Your task to perform on an android device: Add dell xps to the cart on newegg.com Image 0: 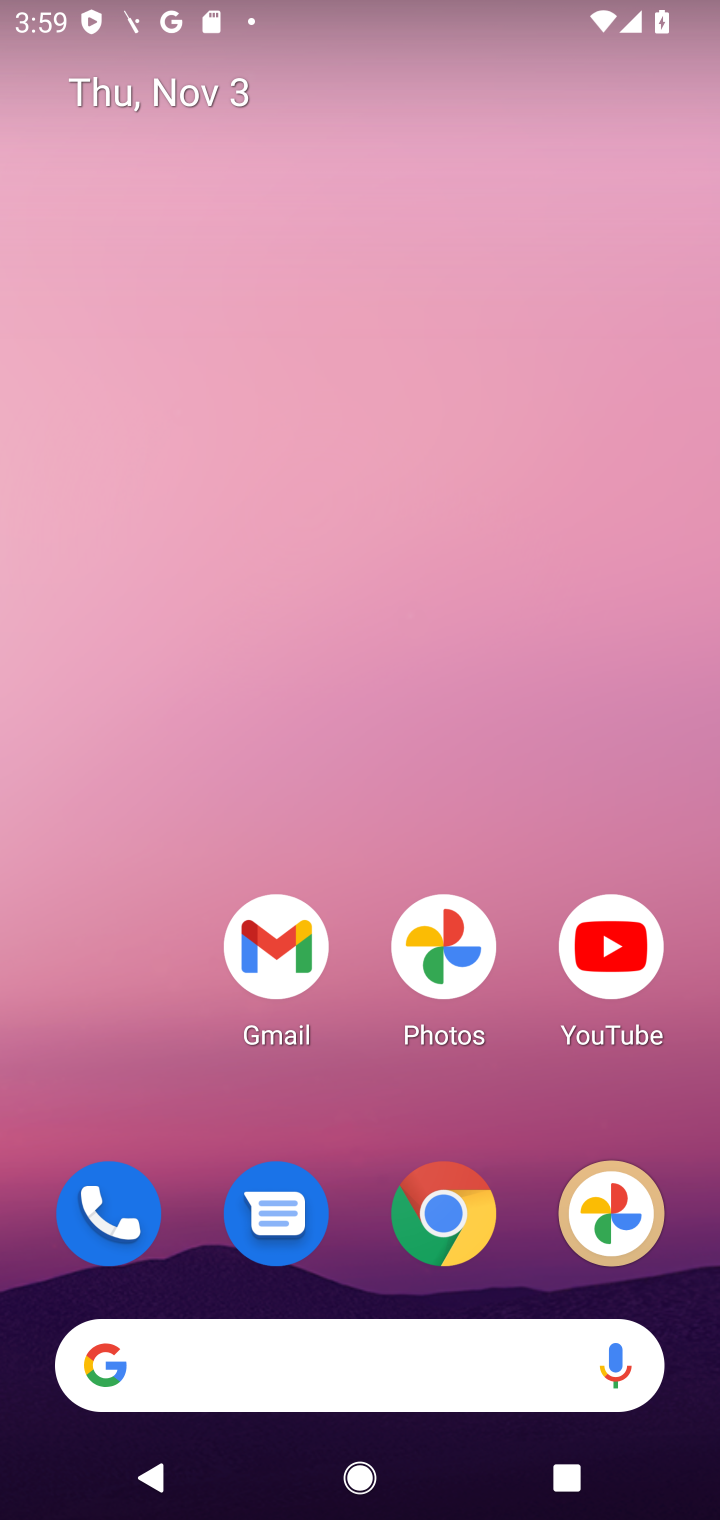
Step 0: click (452, 1229)
Your task to perform on an android device: Add dell xps to the cart on newegg.com Image 1: 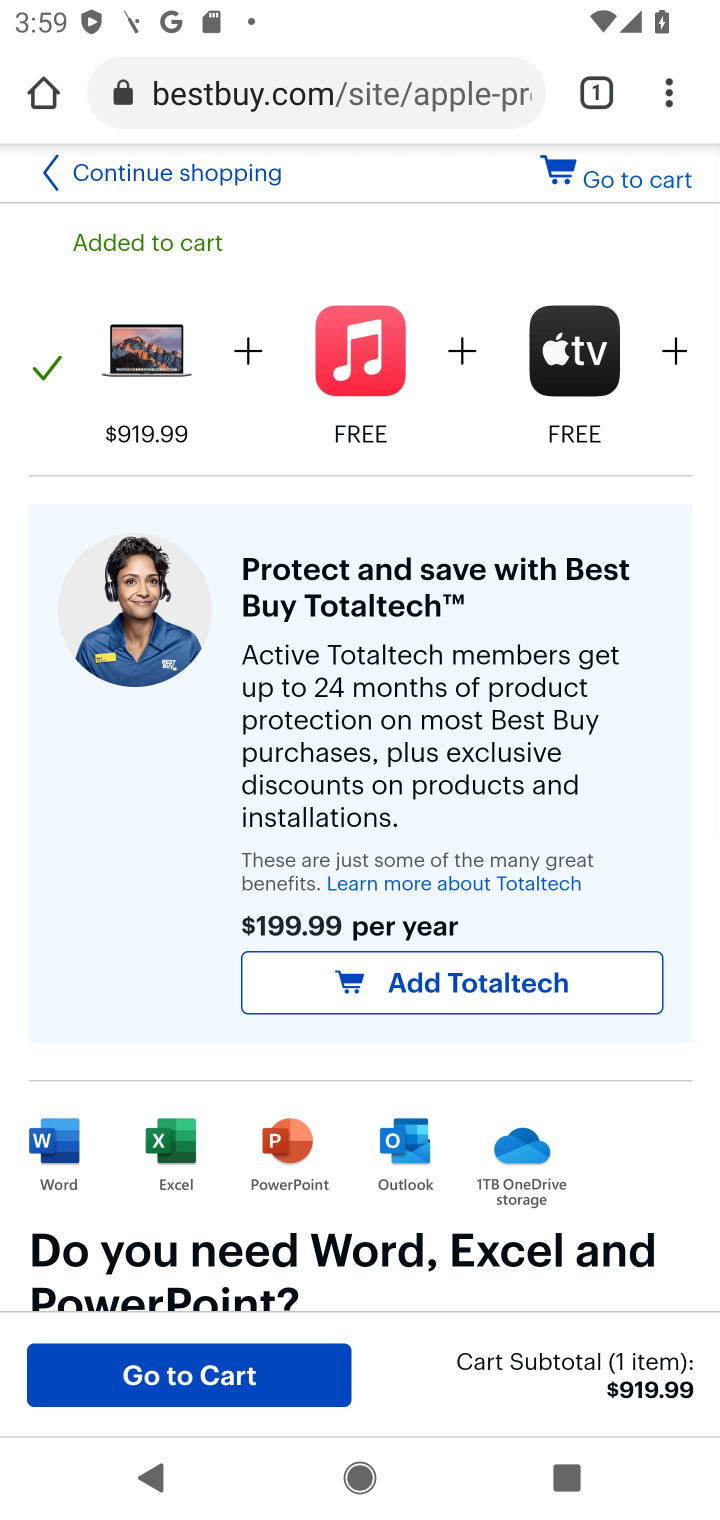
Step 1: click (289, 105)
Your task to perform on an android device: Add dell xps to the cart on newegg.com Image 2: 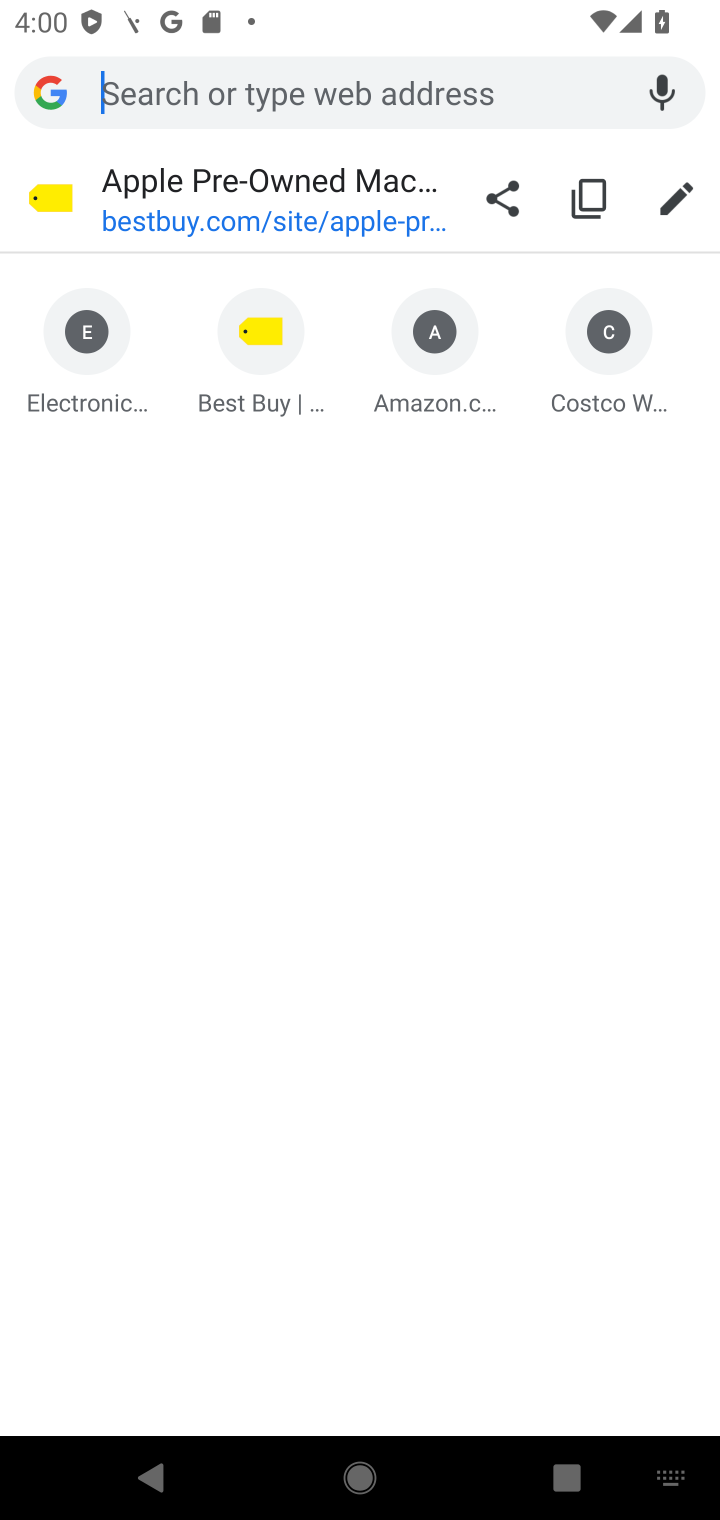
Step 2: type "newegg.com"
Your task to perform on an android device: Add dell xps to the cart on newegg.com Image 3: 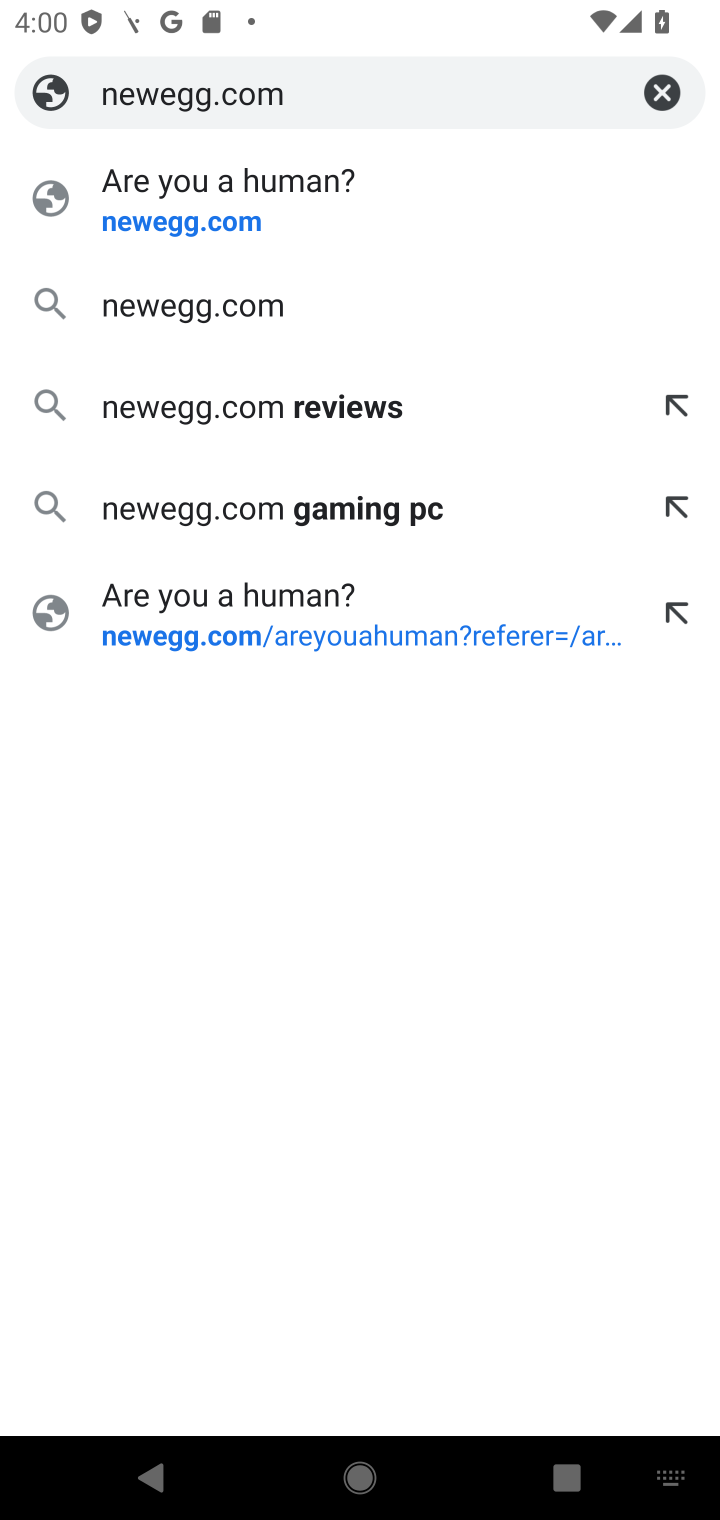
Step 3: click (190, 327)
Your task to perform on an android device: Add dell xps to the cart on newegg.com Image 4: 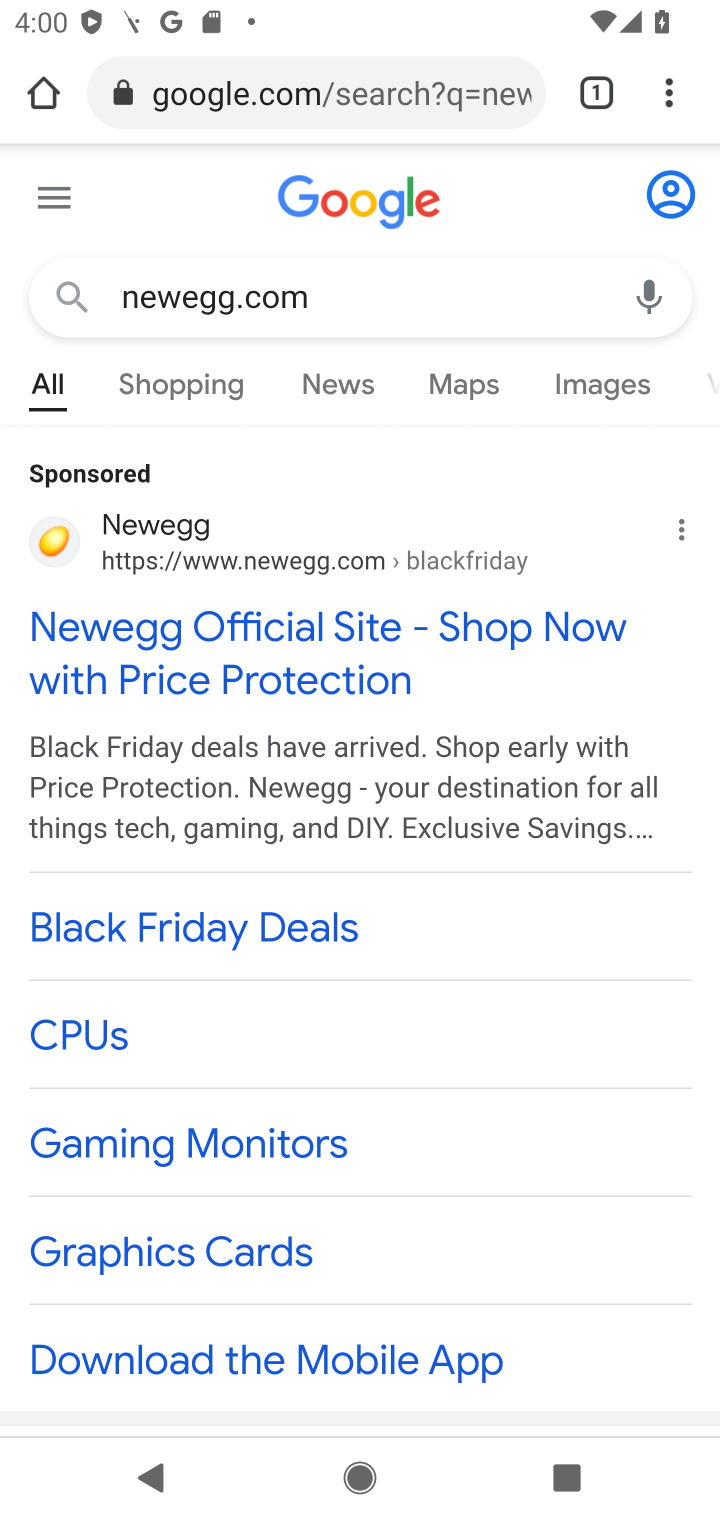
Step 4: drag from (158, 1019) to (207, 180)
Your task to perform on an android device: Add dell xps to the cart on newegg.com Image 5: 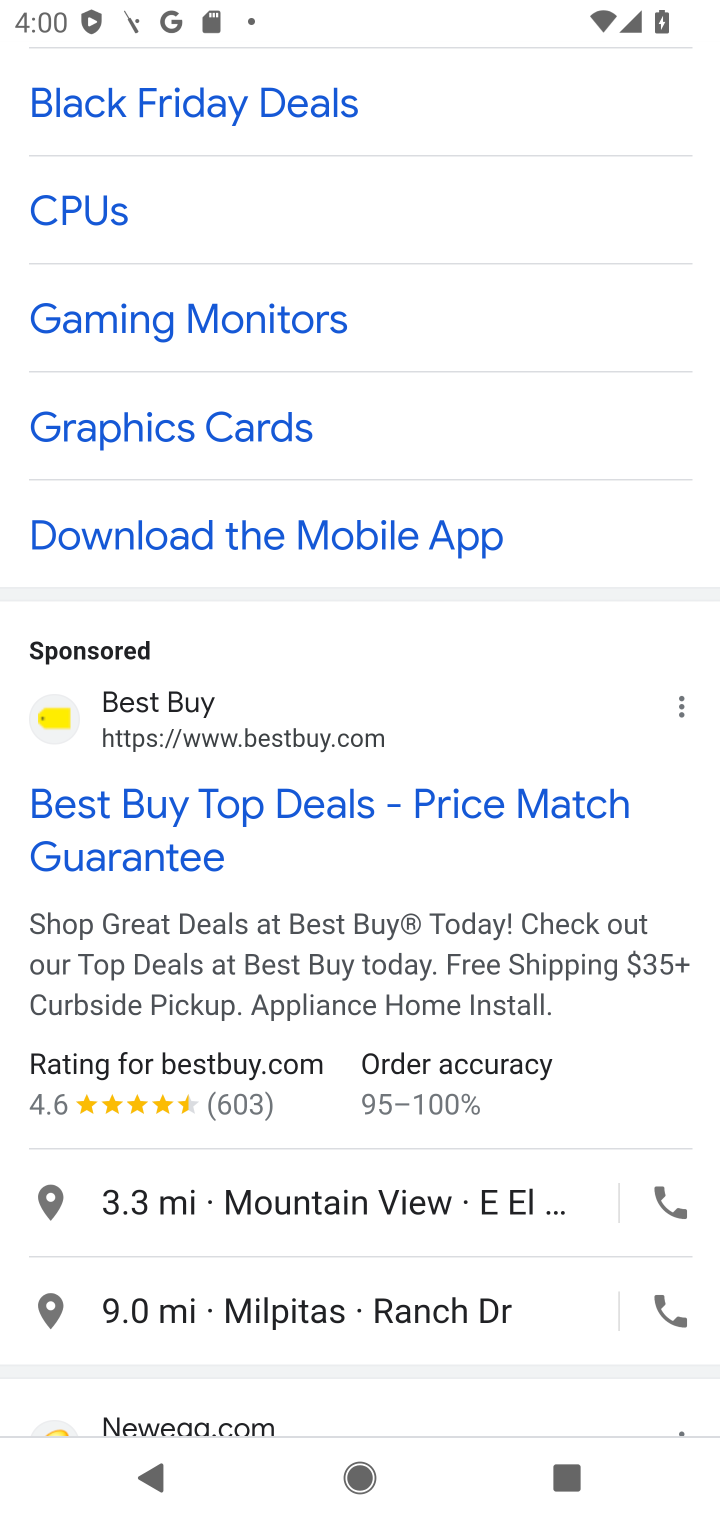
Step 5: drag from (433, 261) to (447, 1073)
Your task to perform on an android device: Add dell xps to the cart on newegg.com Image 6: 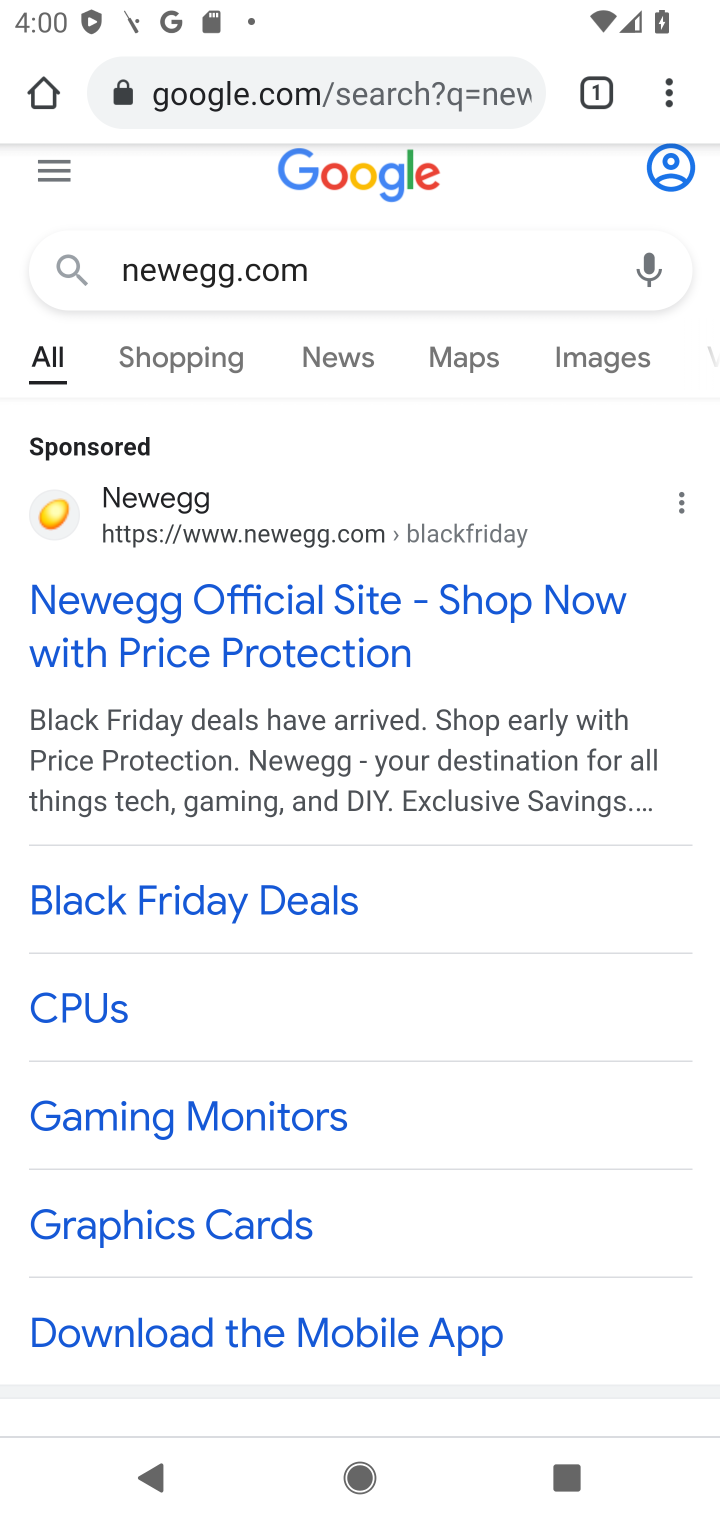
Step 6: drag from (224, 991) to (242, 401)
Your task to perform on an android device: Add dell xps to the cart on newegg.com Image 7: 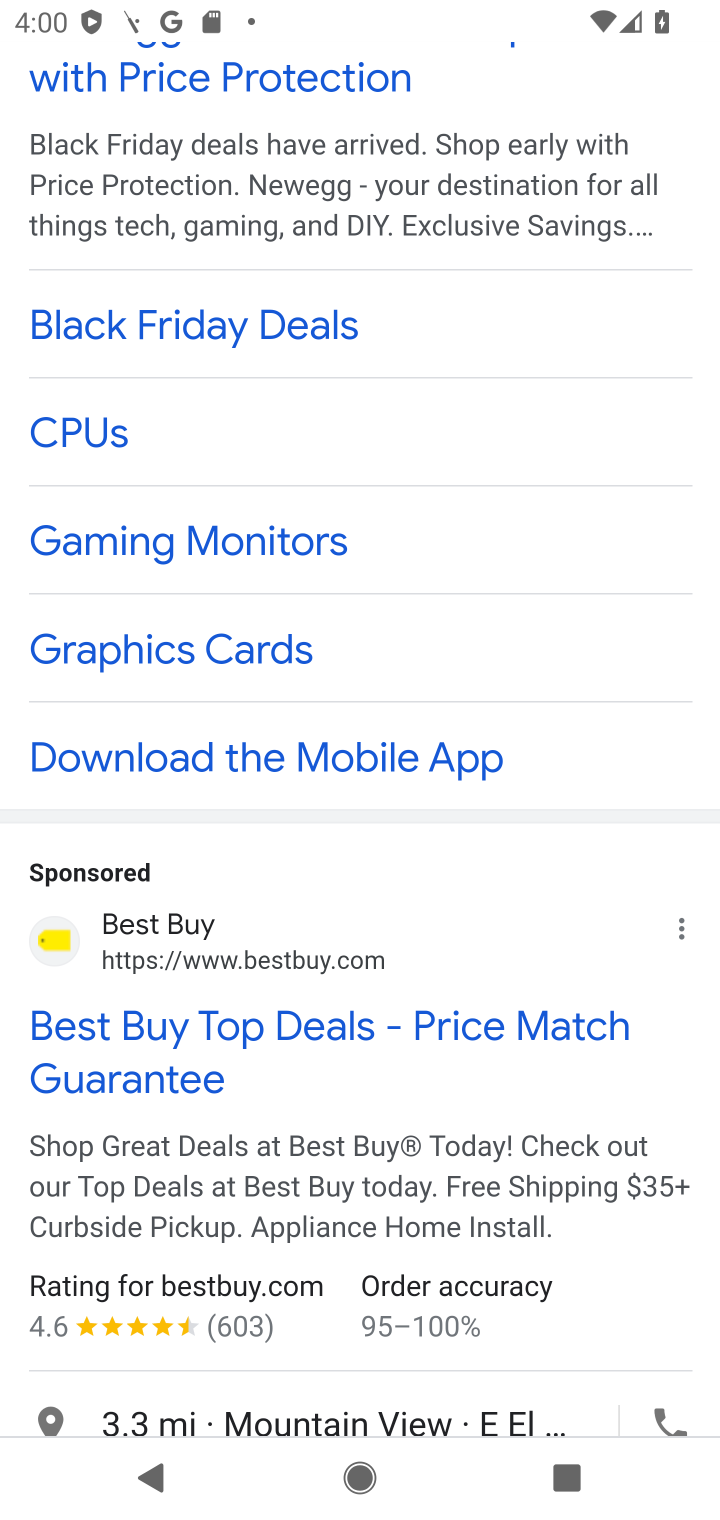
Step 7: drag from (208, 959) to (225, 268)
Your task to perform on an android device: Add dell xps to the cart on newegg.com Image 8: 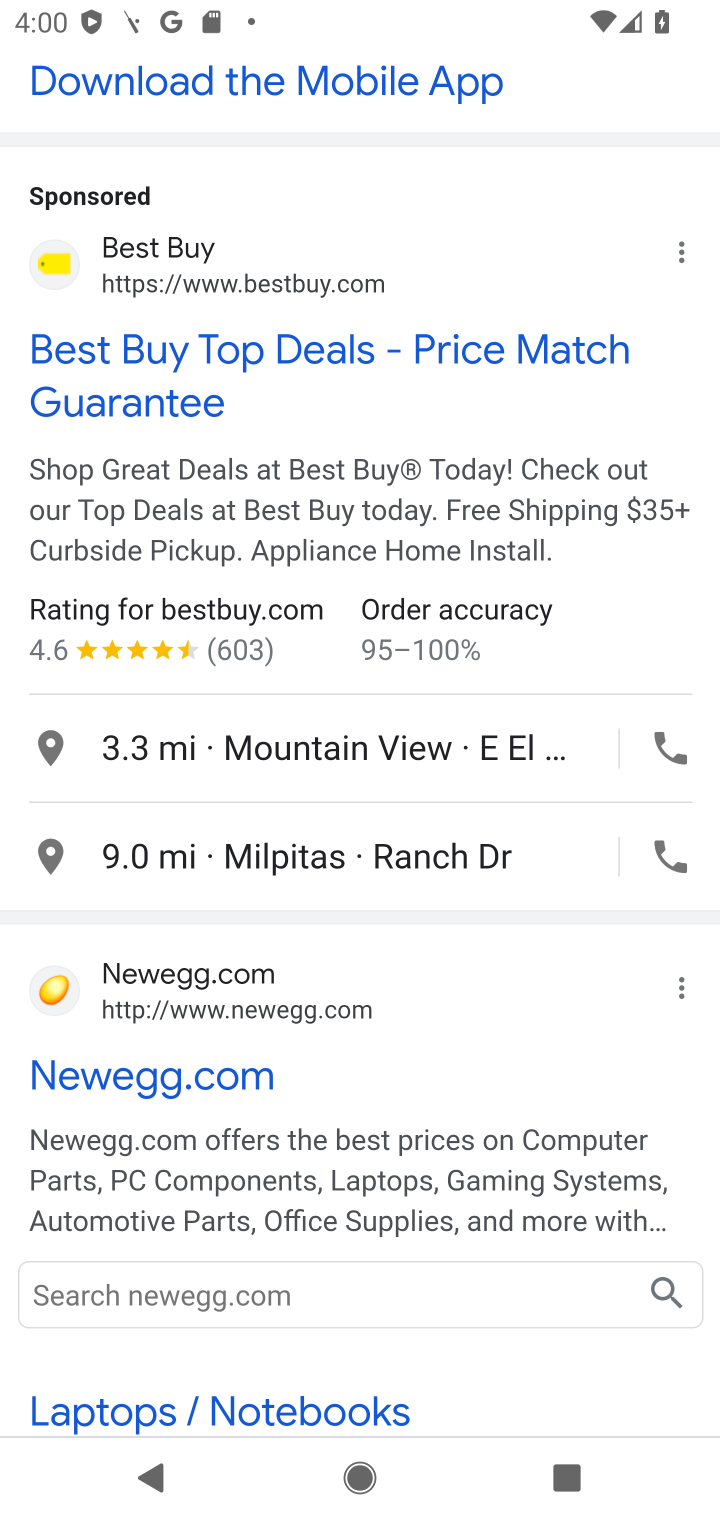
Step 8: drag from (234, 1229) to (275, 643)
Your task to perform on an android device: Add dell xps to the cart on newegg.com Image 9: 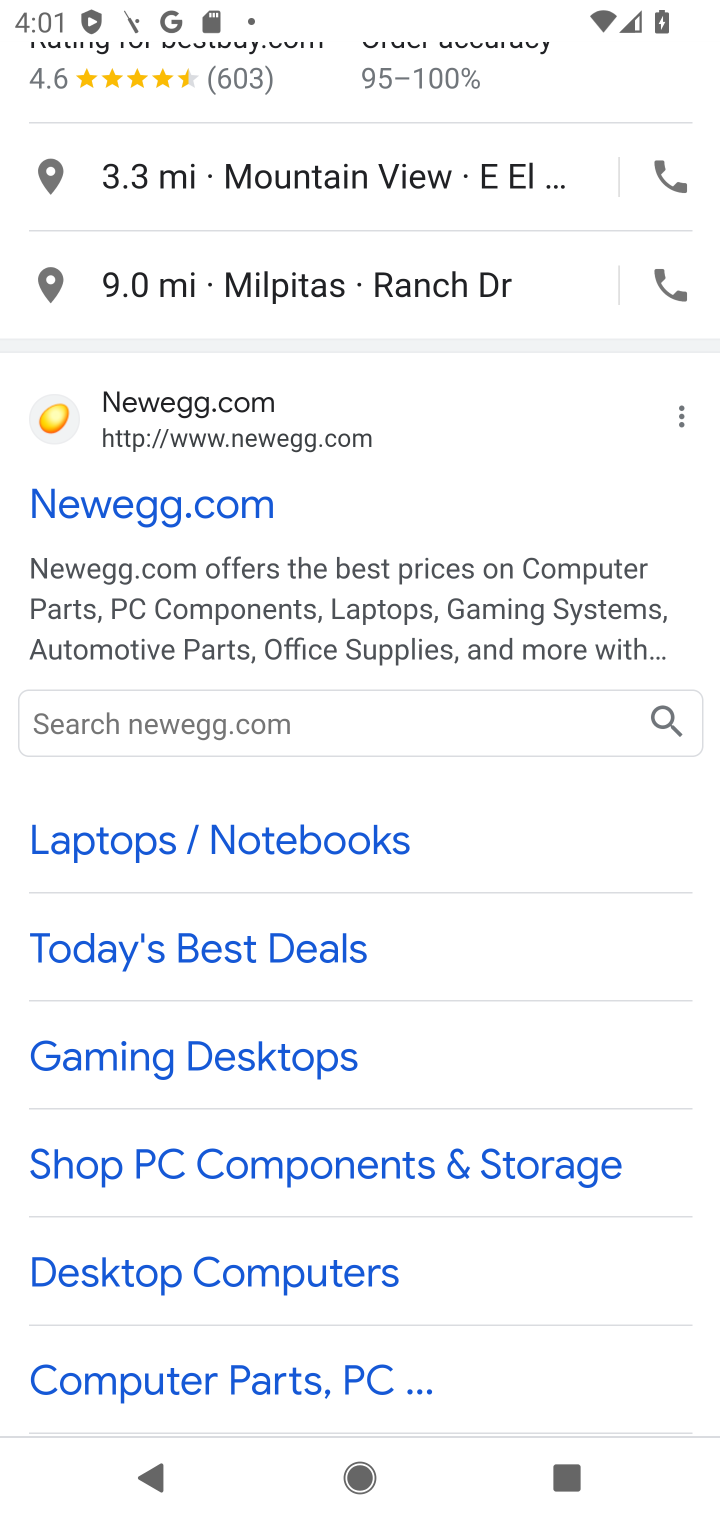
Step 9: click (190, 517)
Your task to perform on an android device: Add dell xps to the cart on newegg.com Image 10: 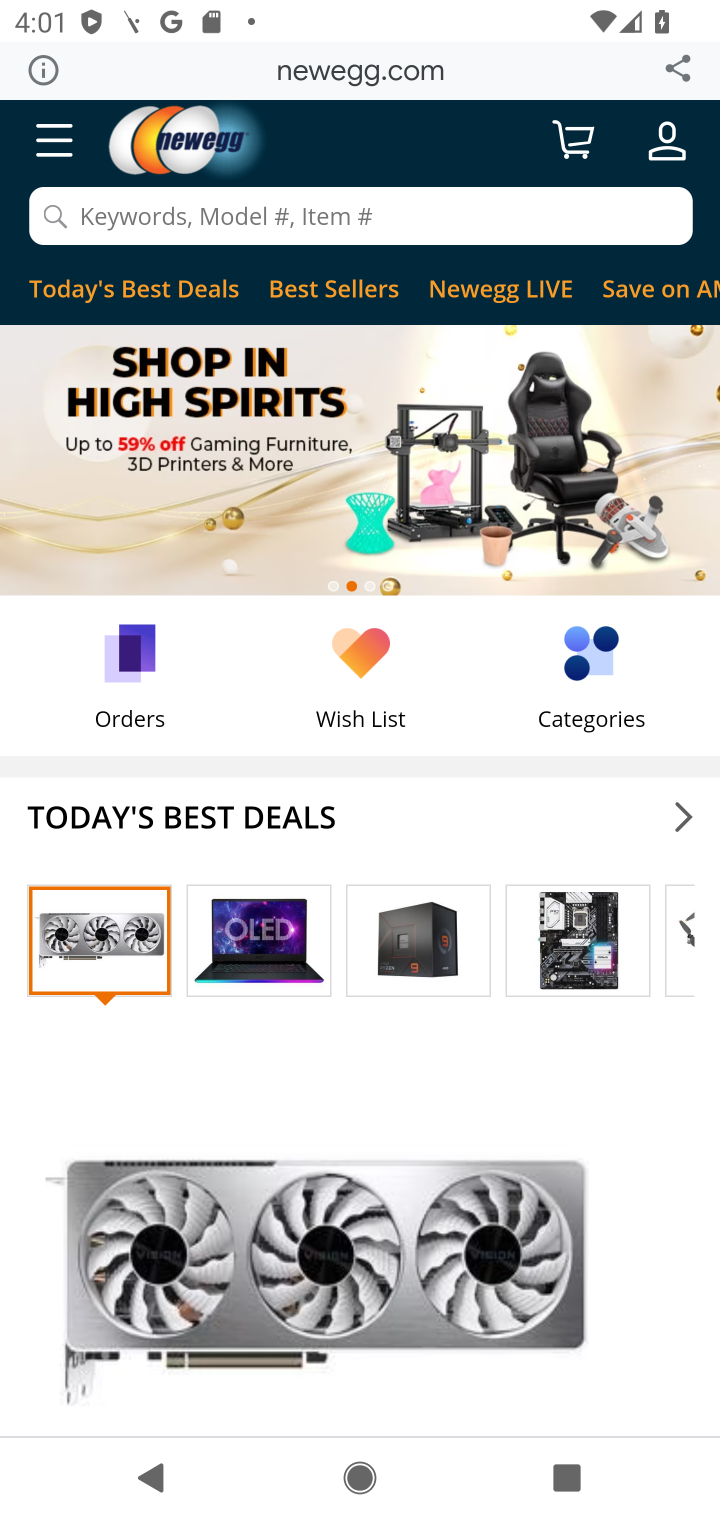
Step 10: click (340, 224)
Your task to perform on an android device: Add dell xps to the cart on newegg.com Image 11: 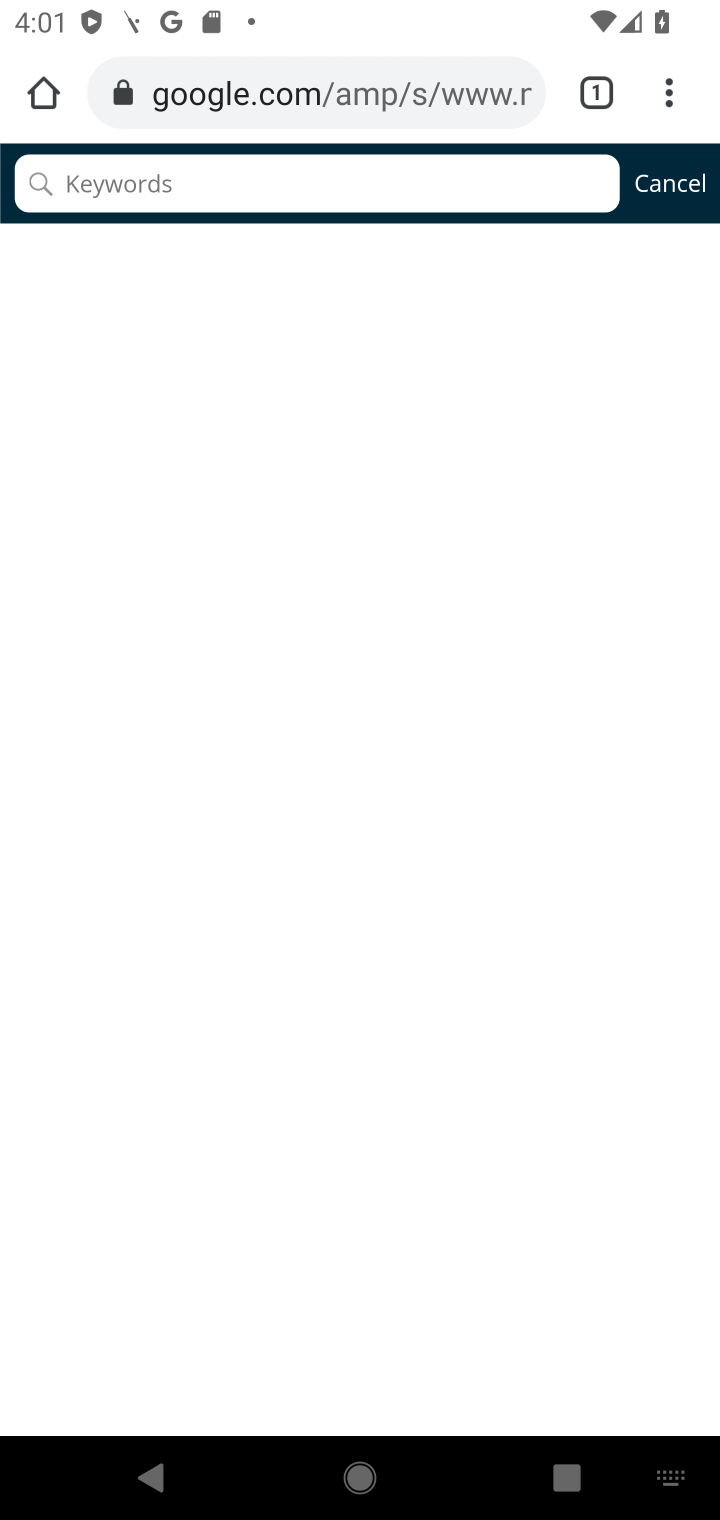
Step 11: type "dell xps"
Your task to perform on an android device: Add dell xps to the cart on newegg.com Image 12: 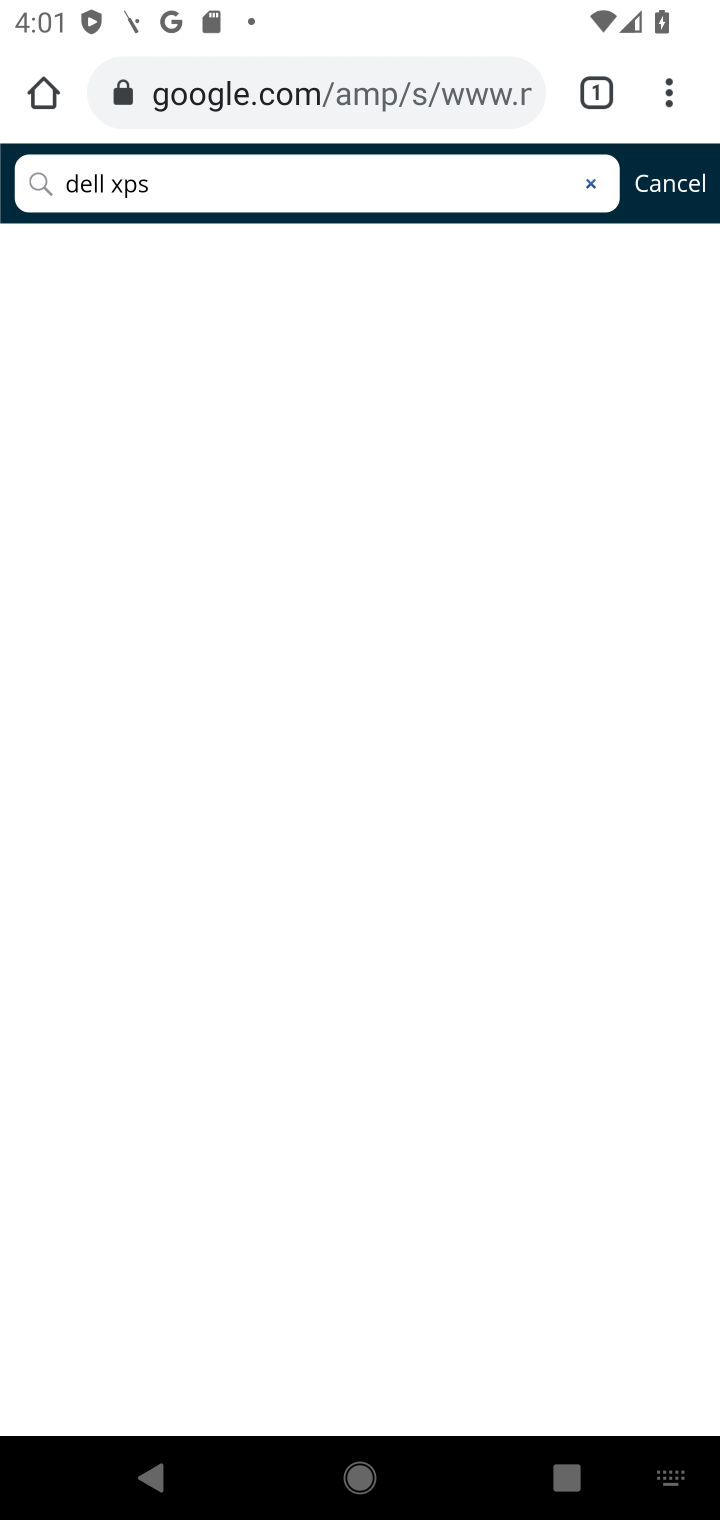
Step 12: click (42, 195)
Your task to perform on an android device: Add dell xps to the cart on newegg.com Image 13: 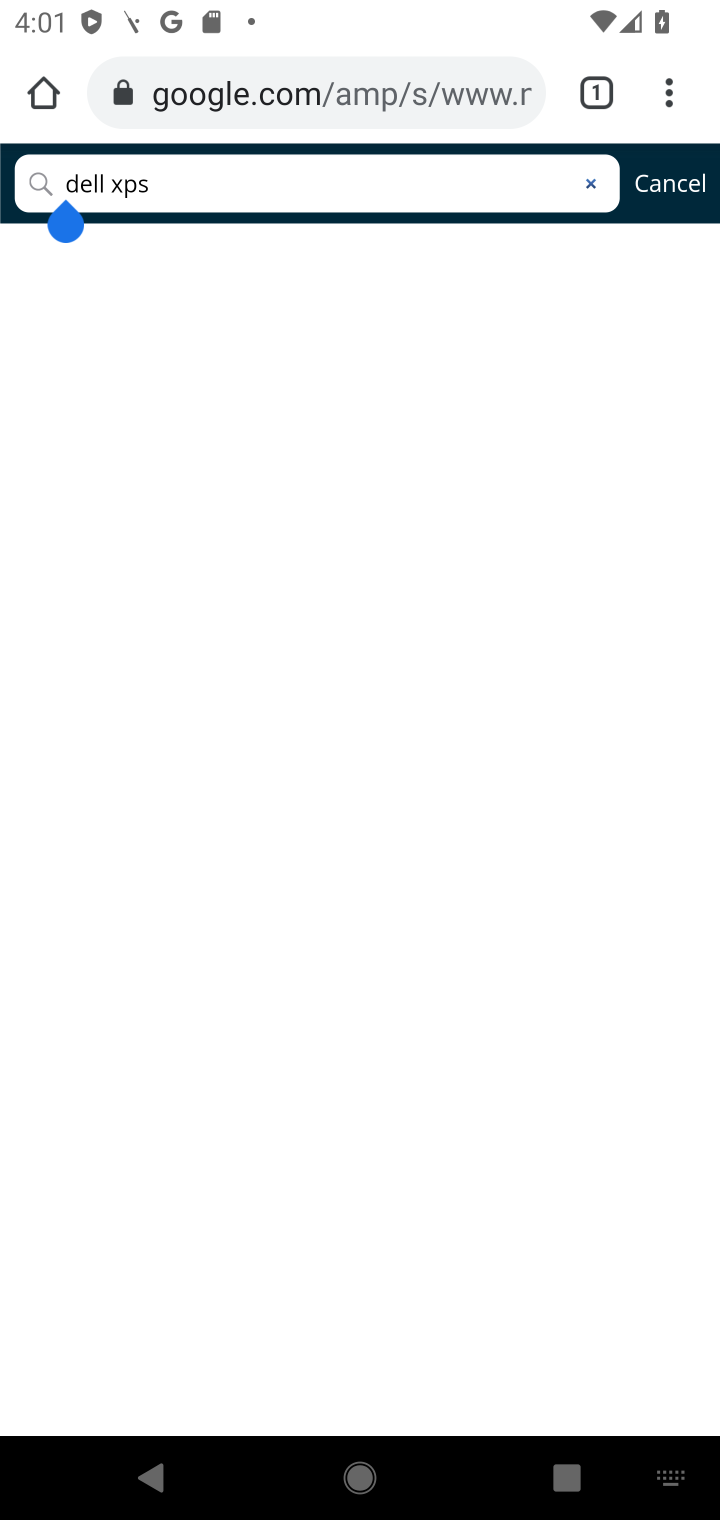
Step 13: task complete